Your task to perform on an android device: allow cookies in the chrome app Image 0: 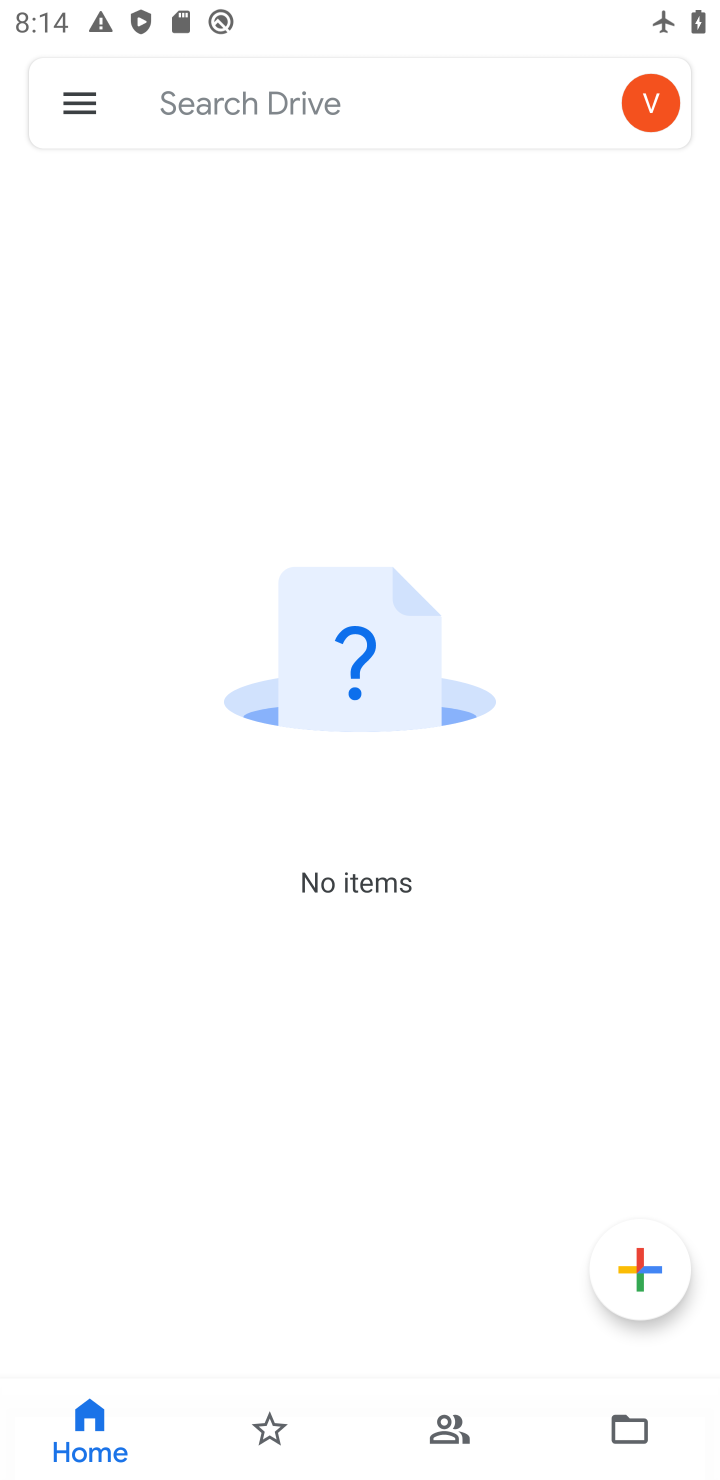
Step 0: press back button
Your task to perform on an android device: allow cookies in the chrome app Image 1: 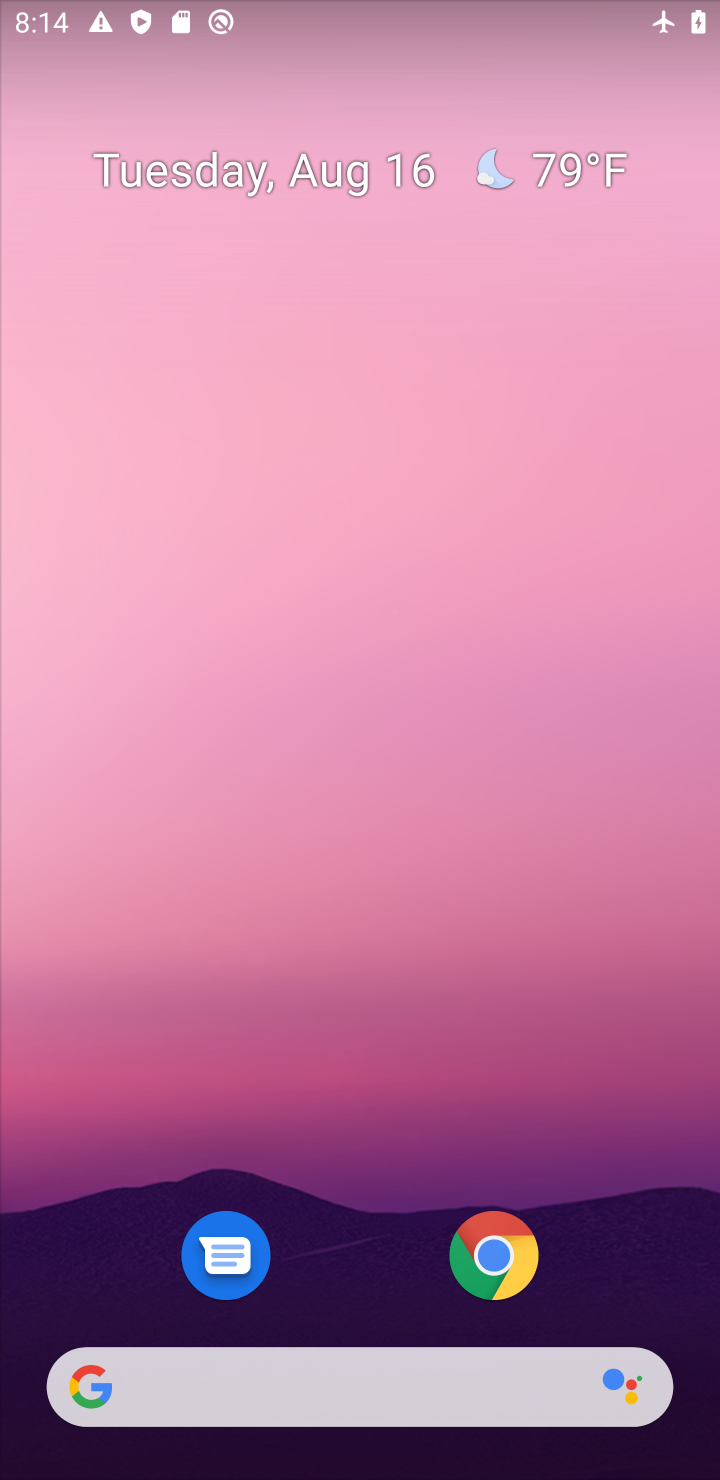
Step 1: click (540, 1262)
Your task to perform on an android device: allow cookies in the chrome app Image 2: 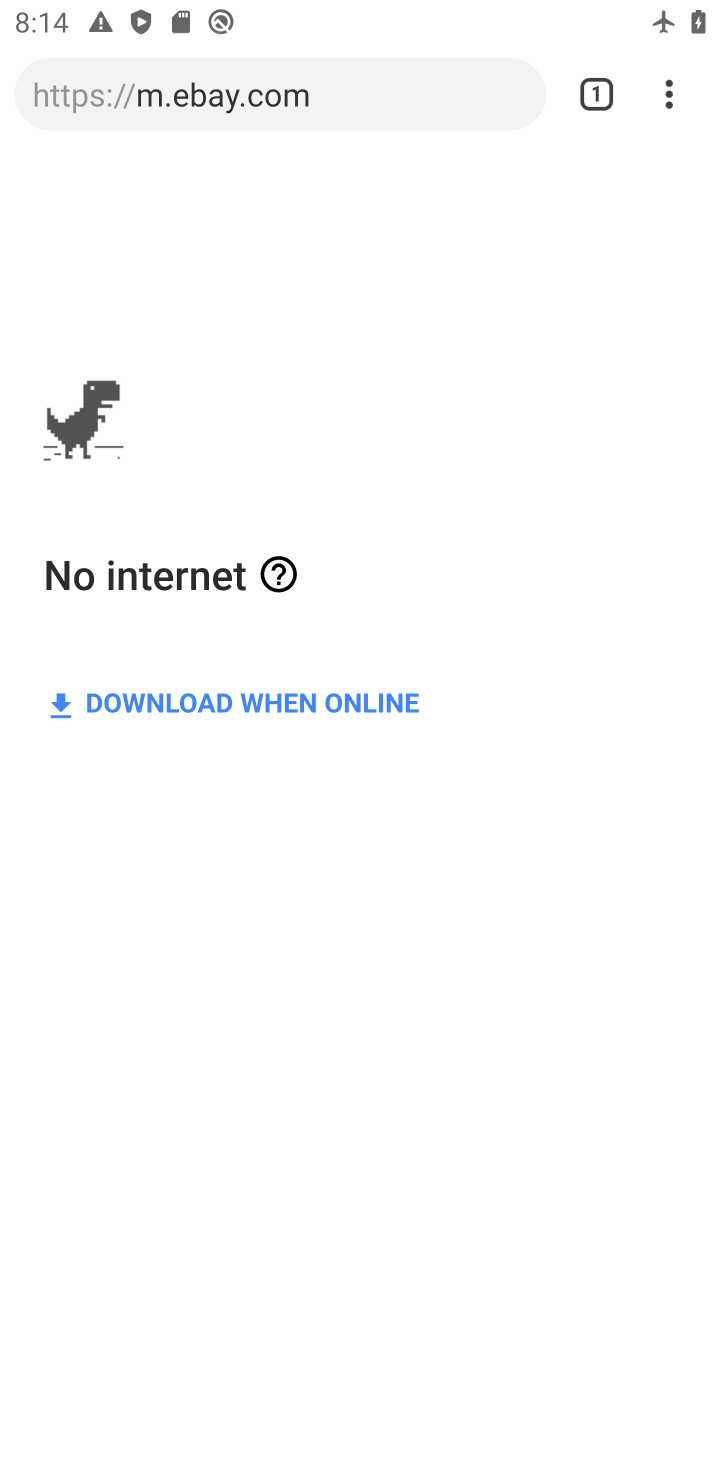
Step 2: drag from (670, 94) to (431, 1164)
Your task to perform on an android device: allow cookies in the chrome app Image 3: 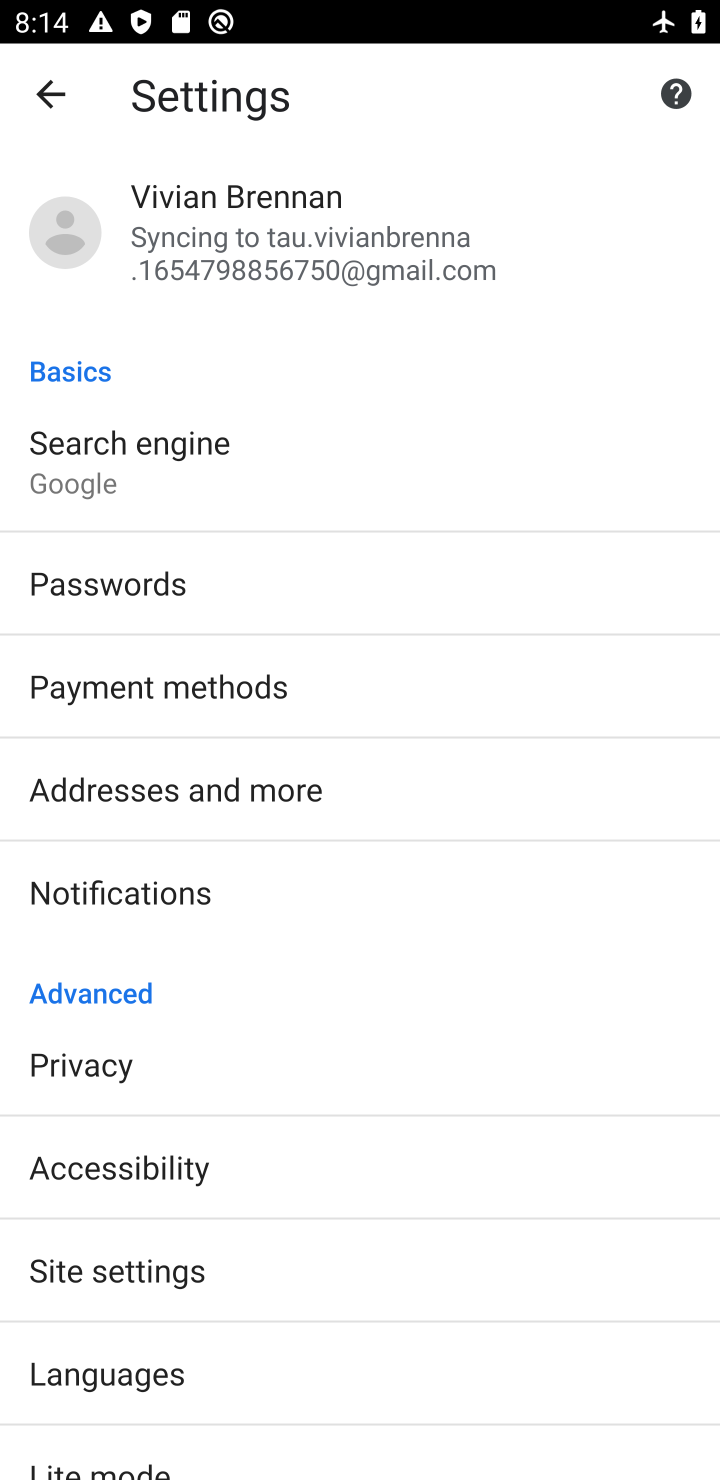
Step 3: click (279, 1273)
Your task to perform on an android device: allow cookies in the chrome app Image 4: 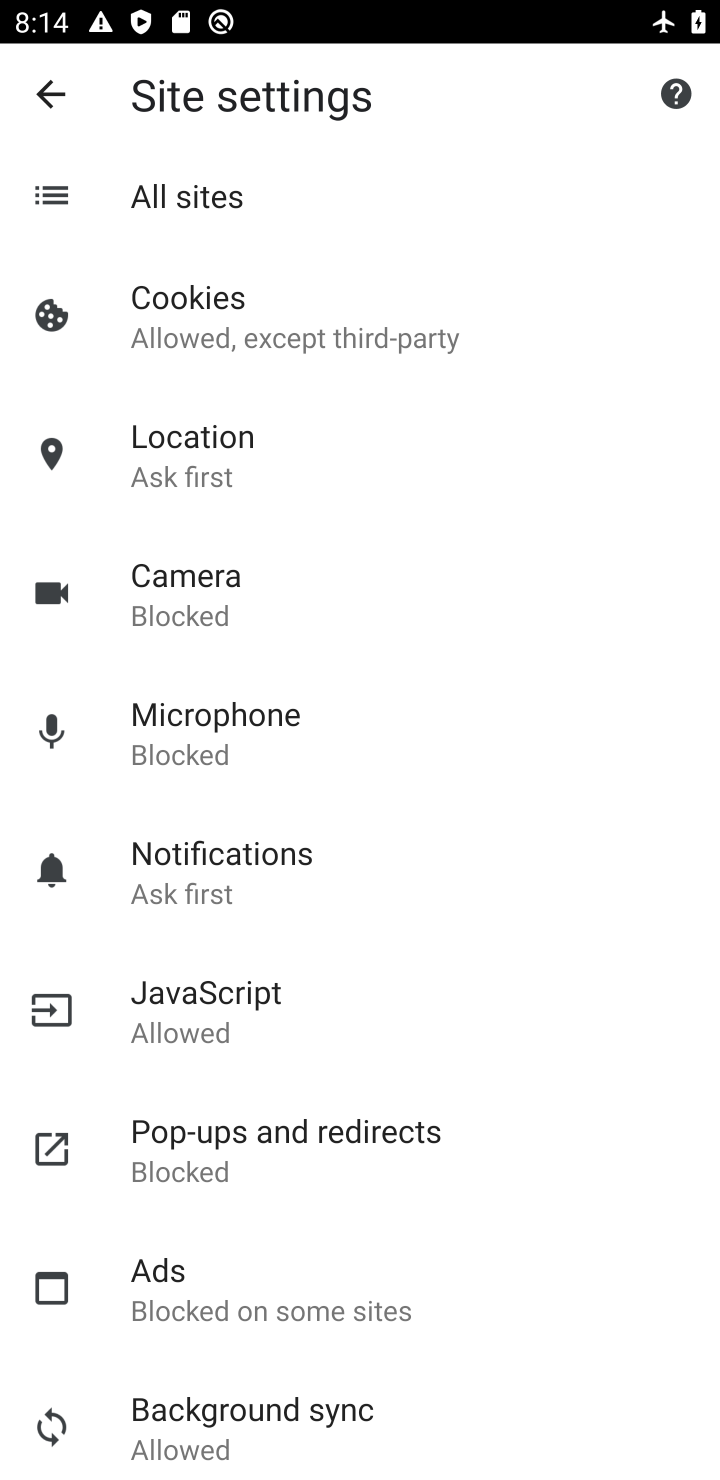
Step 4: click (236, 316)
Your task to perform on an android device: allow cookies in the chrome app Image 5: 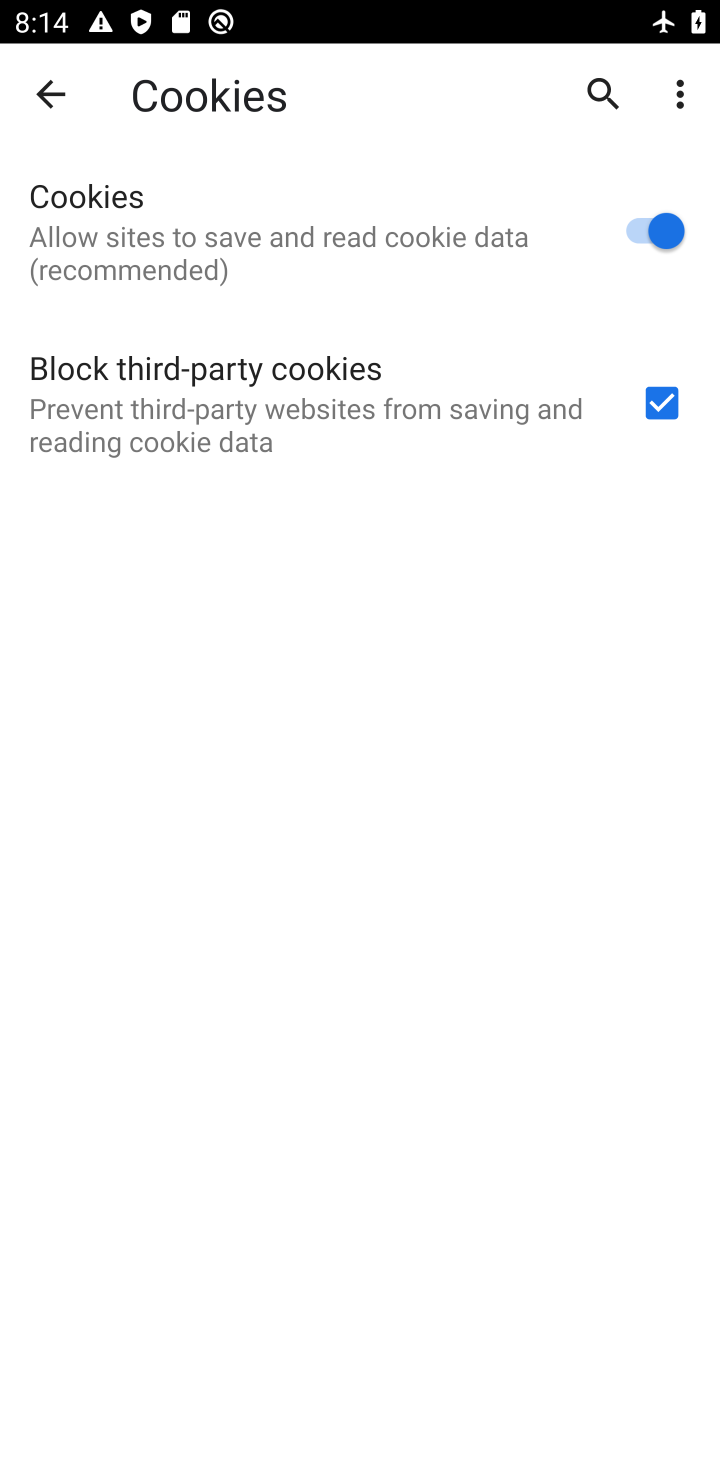
Step 5: task complete